Your task to perform on an android device: change alarm snooze length Image 0: 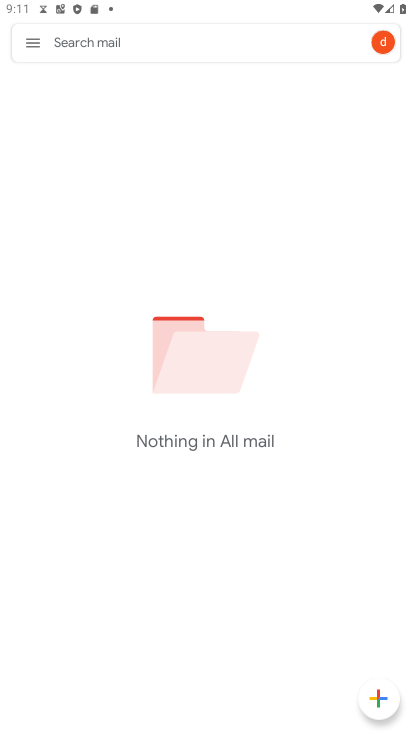
Step 0: press home button
Your task to perform on an android device: change alarm snooze length Image 1: 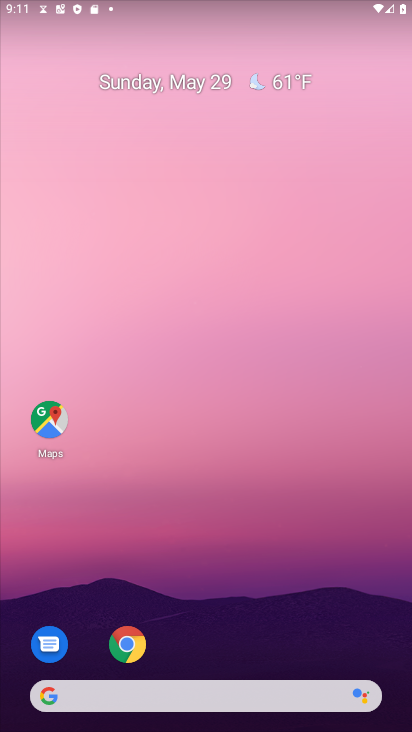
Step 1: drag from (228, 606) to (226, 256)
Your task to perform on an android device: change alarm snooze length Image 2: 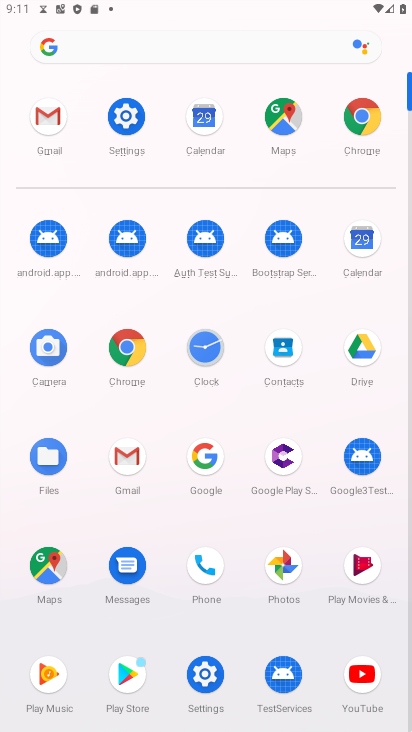
Step 2: click (208, 354)
Your task to perform on an android device: change alarm snooze length Image 3: 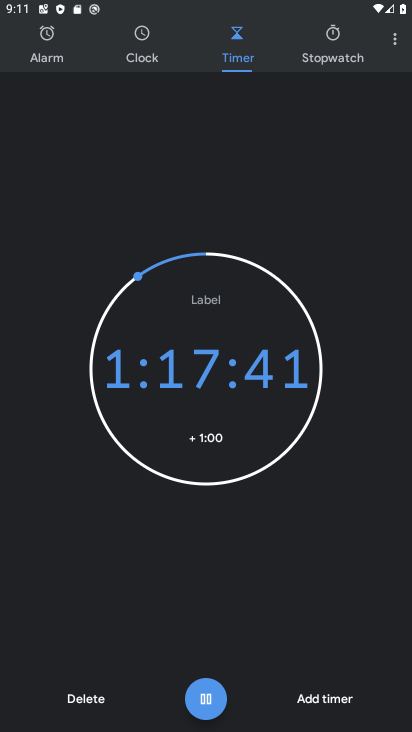
Step 3: click (394, 46)
Your task to perform on an android device: change alarm snooze length Image 4: 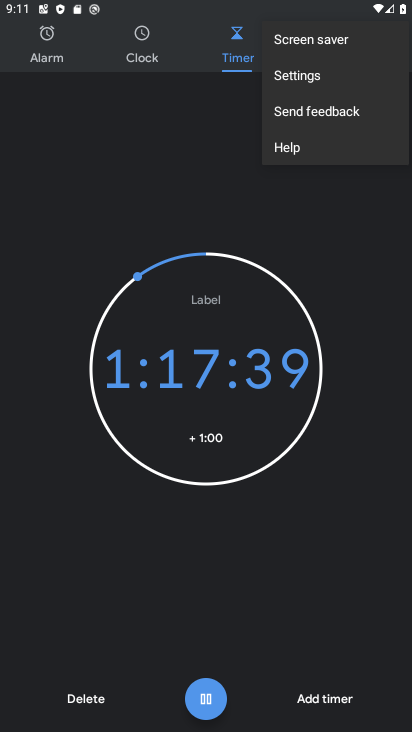
Step 4: click (306, 79)
Your task to perform on an android device: change alarm snooze length Image 5: 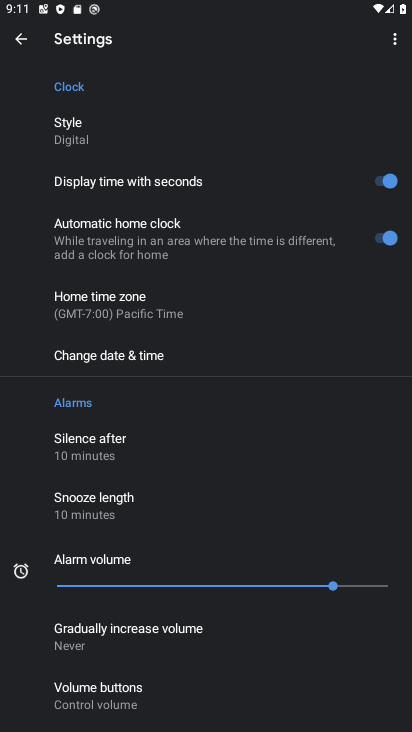
Step 5: click (142, 495)
Your task to perform on an android device: change alarm snooze length Image 6: 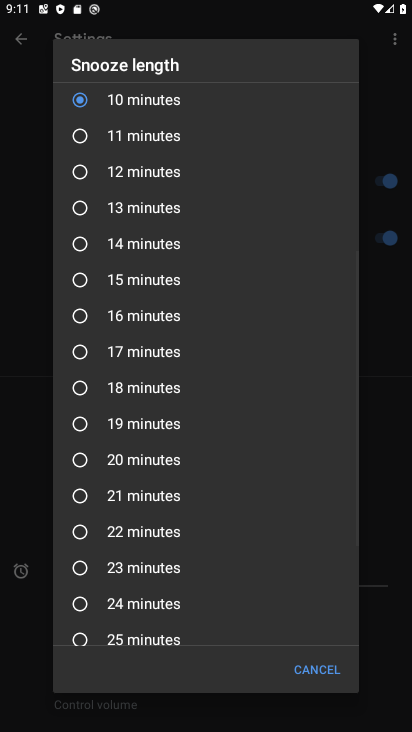
Step 6: click (132, 319)
Your task to perform on an android device: change alarm snooze length Image 7: 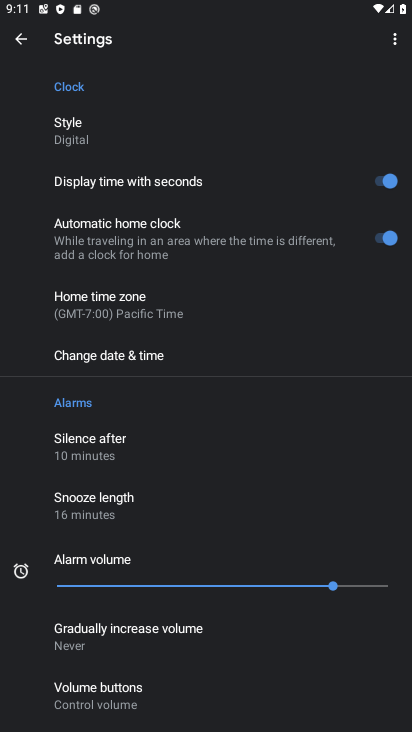
Step 7: task complete